Your task to perform on an android device: Show me recent news Image 0: 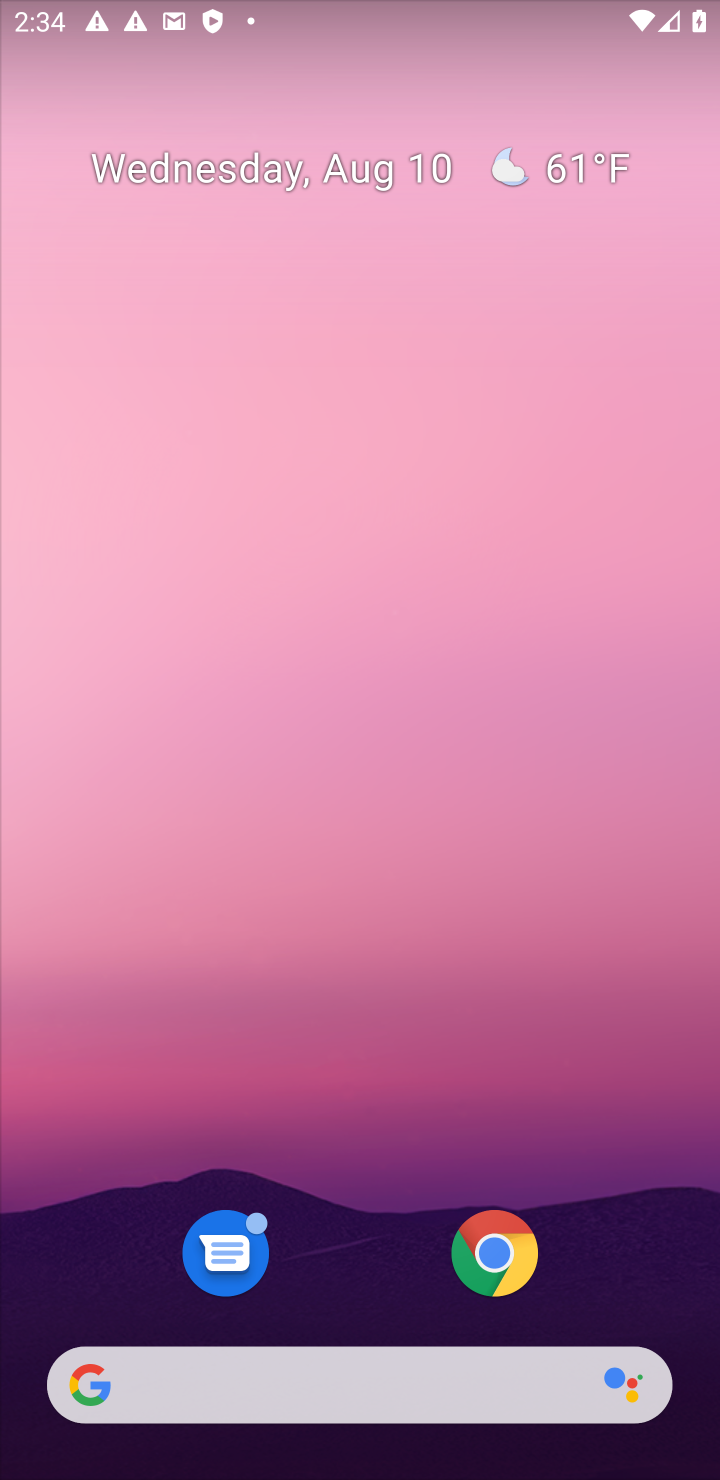
Step 0: click (309, 1382)
Your task to perform on an android device: Show me recent news Image 1: 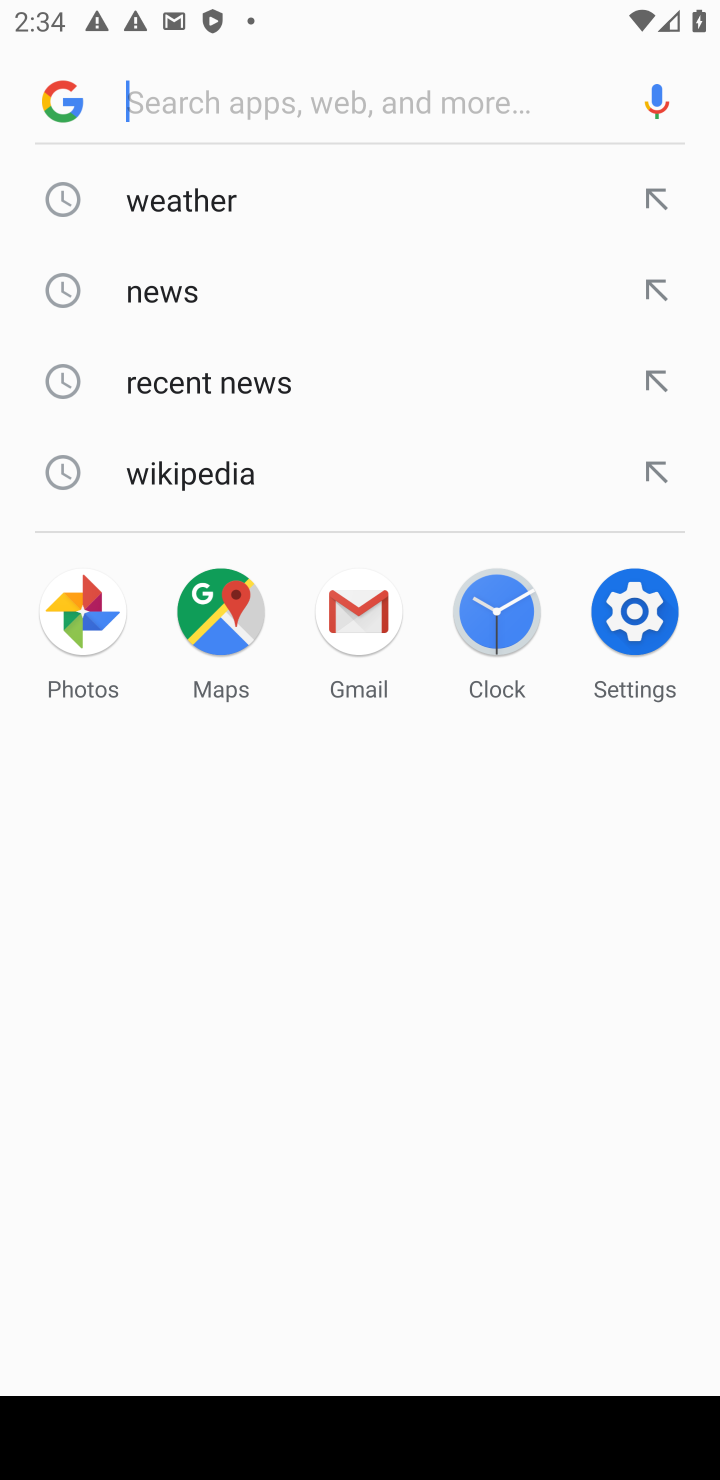
Step 1: type "Show me recent news"
Your task to perform on an android device: Show me recent news Image 2: 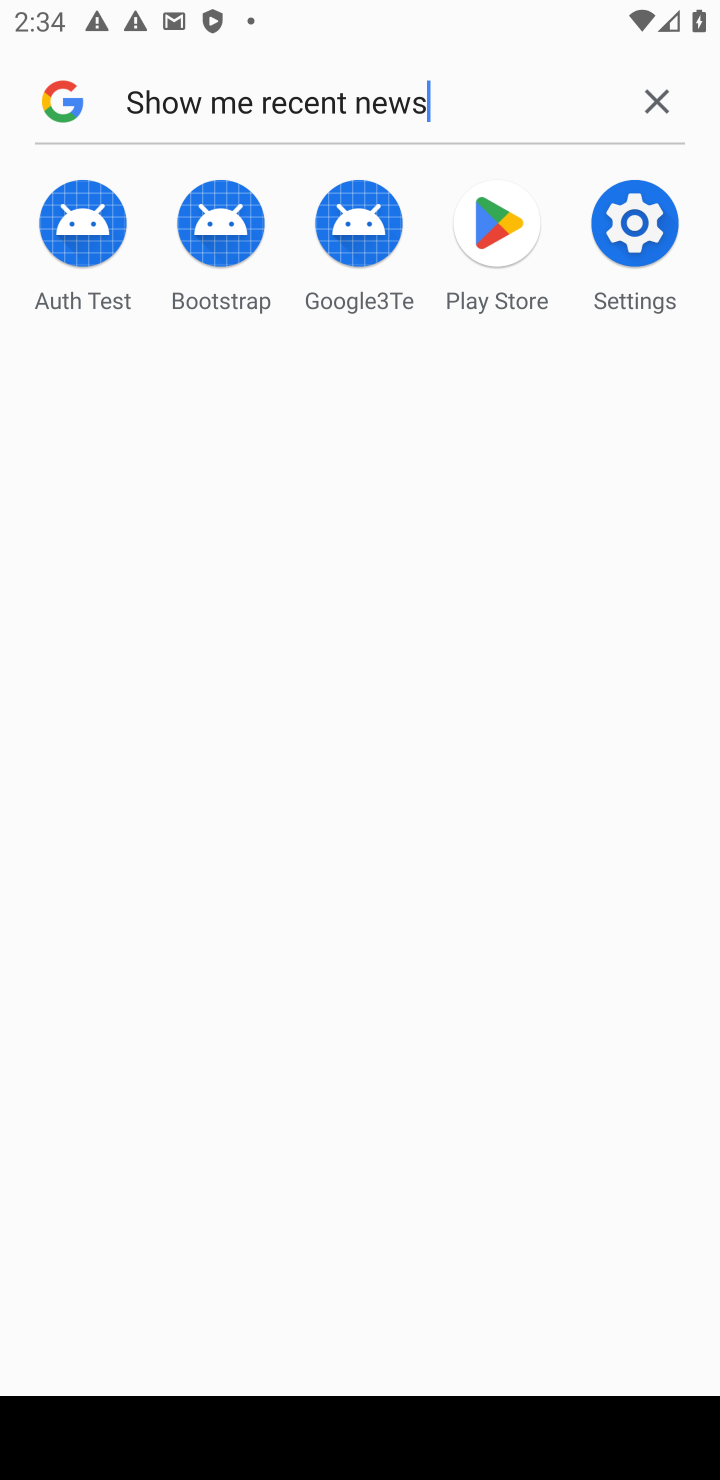
Step 2: press enter
Your task to perform on an android device: Show me recent news Image 3: 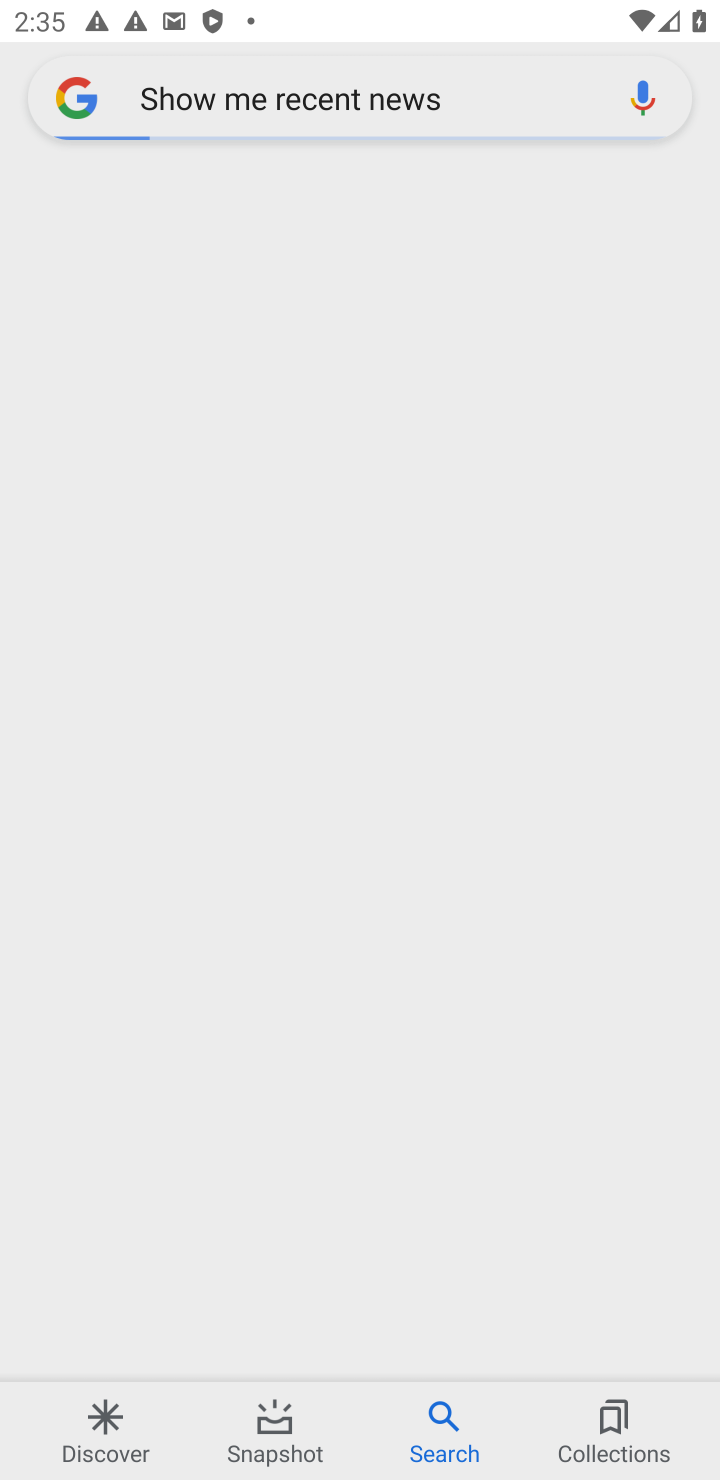
Step 3: task complete